Your task to perform on an android device: turn off airplane mode Image 0: 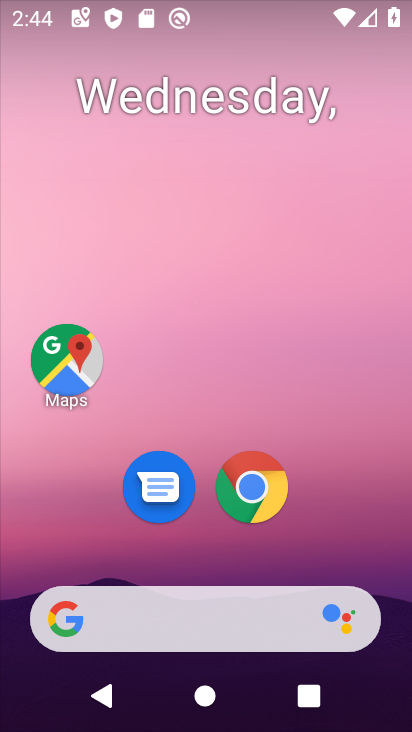
Step 0: drag from (378, 556) to (363, 203)
Your task to perform on an android device: turn off airplane mode Image 1: 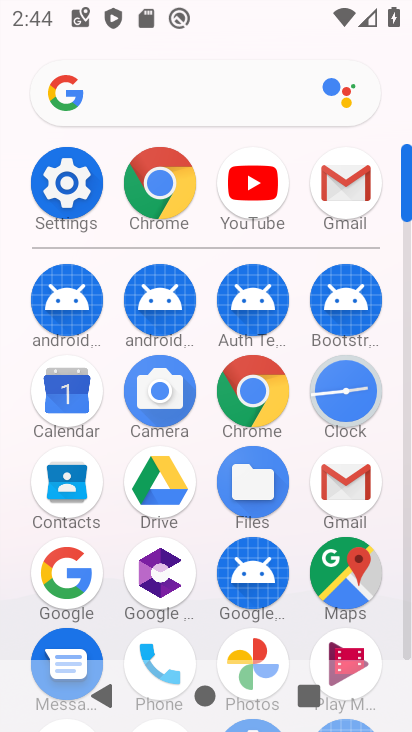
Step 1: click (79, 213)
Your task to perform on an android device: turn off airplane mode Image 2: 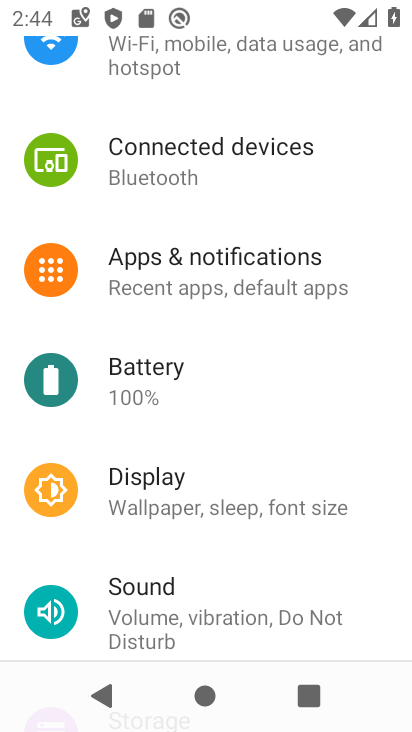
Step 2: drag from (303, 349) to (311, 428)
Your task to perform on an android device: turn off airplane mode Image 3: 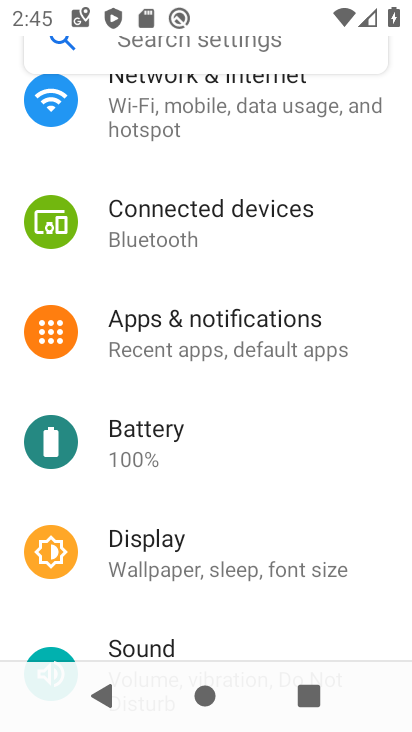
Step 3: drag from (368, 294) to (365, 417)
Your task to perform on an android device: turn off airplane mode Image 4: 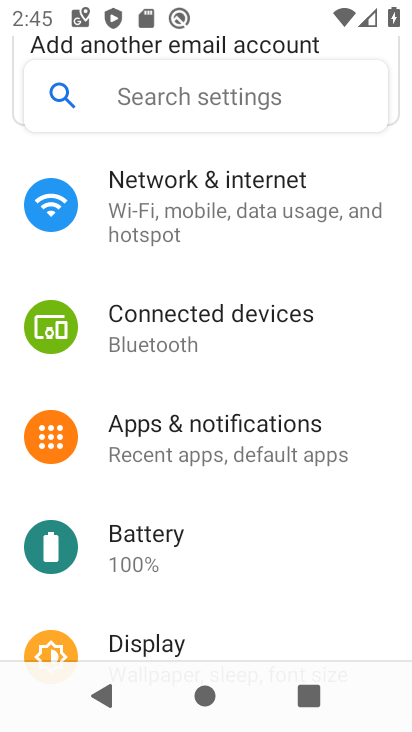
Step 4: drag from (356, 296) to (364, 459)
Your task to perform on an android device: turn off airplane mode Image 5: 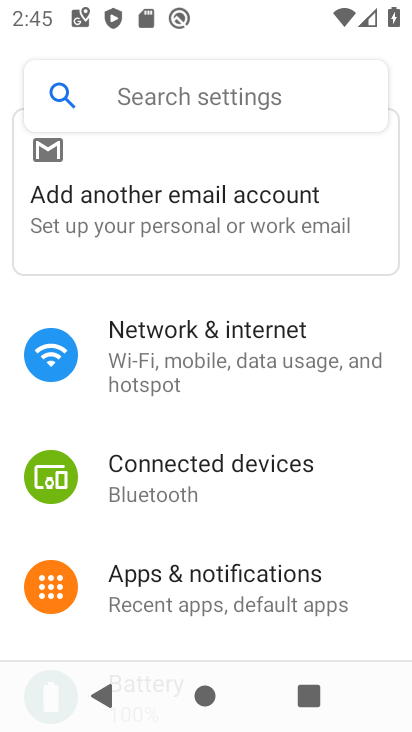
Step 5: drag from (356, 300) to (352, 447)
Your task to perform on an android device: turn off airplane mode Image 6: 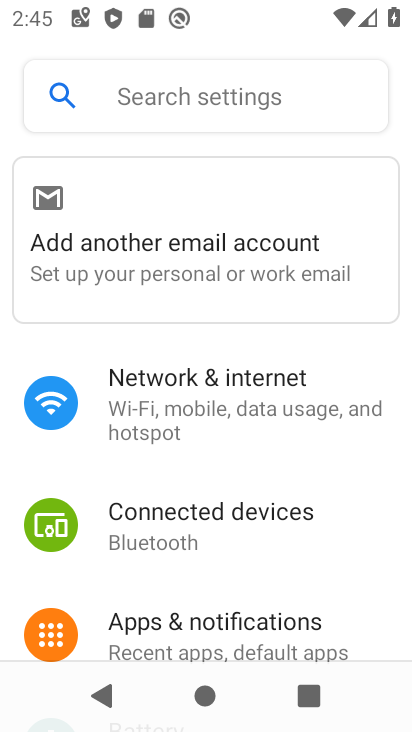
Step 6: drag from (347, 504) to (362, 404)
Your task to perform on an android device: turn off airplane mode Image 7: 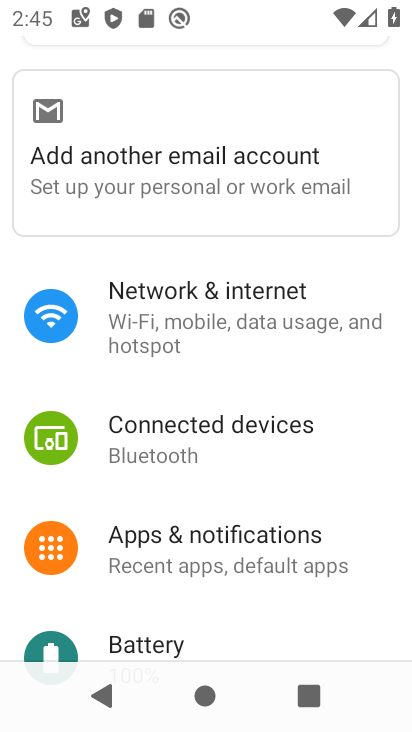
Step 7: drag from (351, 502) to (355, 404)
Your task to perform on an android device: turn off airplane mode Image 8: 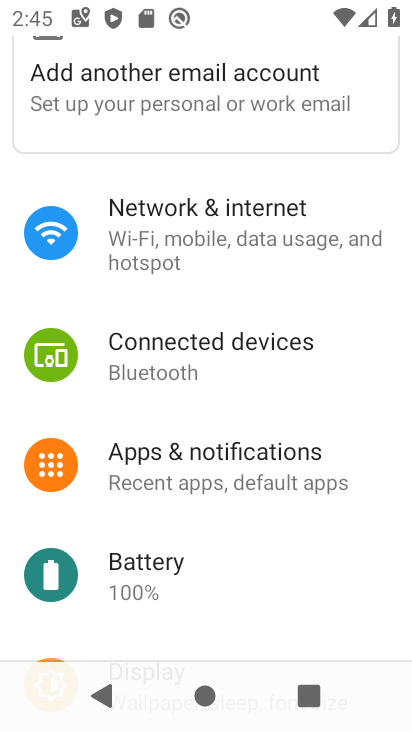
Step 8: drag from (340, 515) to (348, 413)
Your task to perform on an android device: turn off airplane mode Image 9: 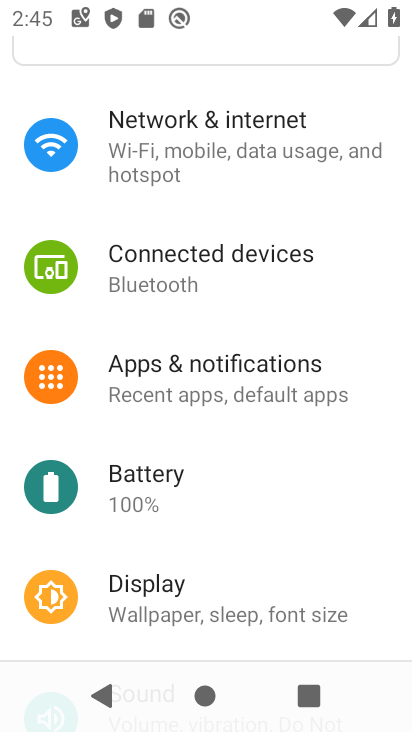
Step 9: drag from (325, 518) to (334, 414)
Your task to perform on an android device: turn off airplane mode Image 10: 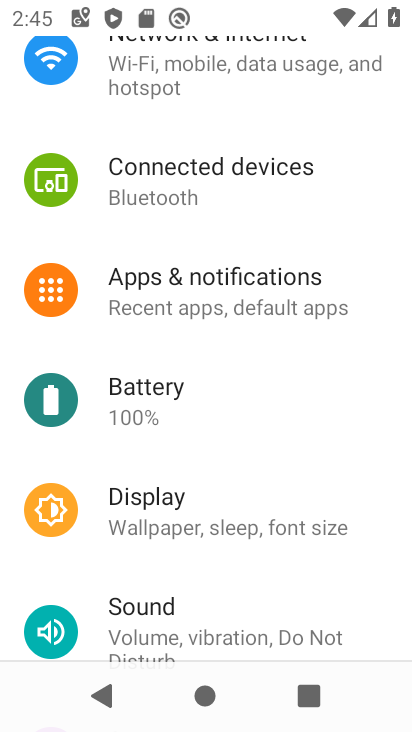
Step 10: drag from (363, 263) to (364, 380)
Your task to perform on an android device: turn off airplane mode Image 11: 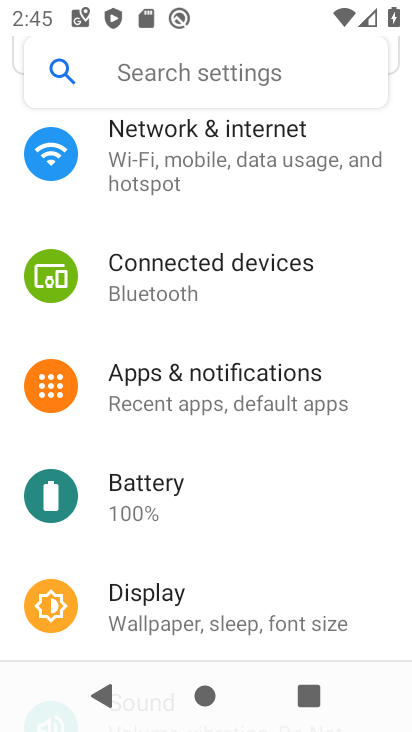
Step 11: drag from (349, 261) to (352, 411)
Your task to perform on an android device: turn off airplane mode Image 12: 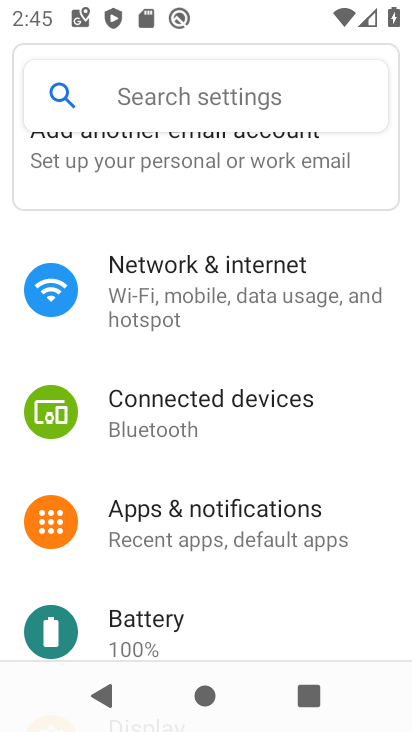
Step 12: drag from (334, 256) to (324, 492)
Your task to perform on an android device: turn off airplane mode Image 13: 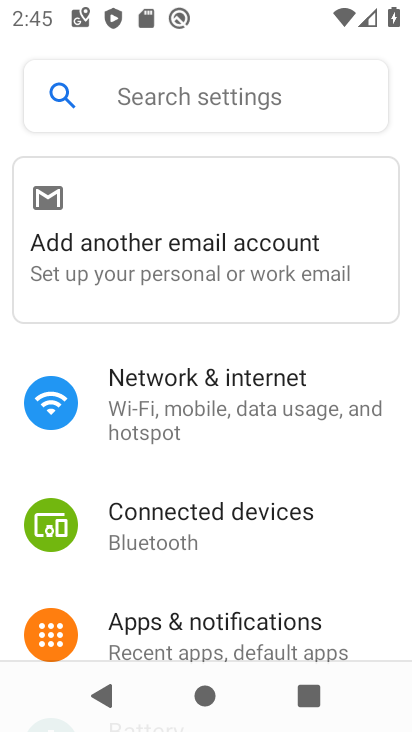
Step 13: click (311, 392)
Your task to perform on an android device: turn off airplane mode Image 14: 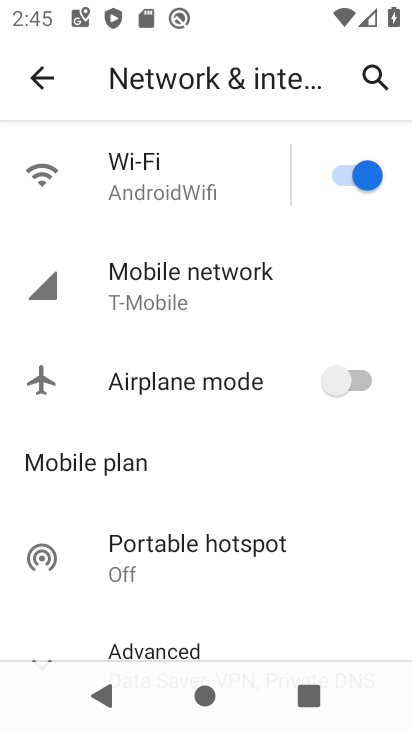
Step 14: task complete